Your task to perform on an android device: Open eBay Image 0: 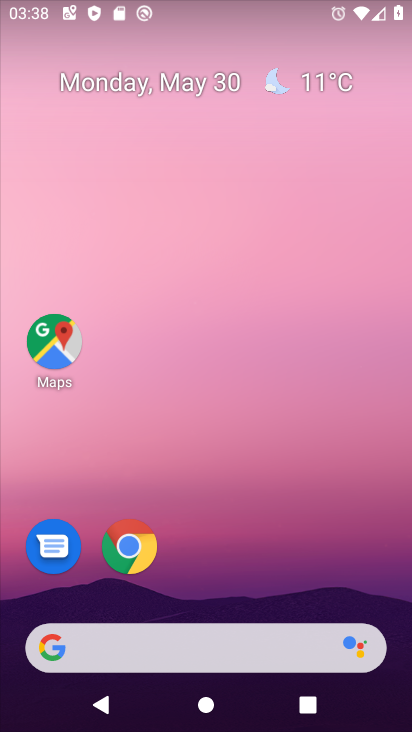
Step 0: press home button
Your task to perform on an android device: Open eBay Image 1: 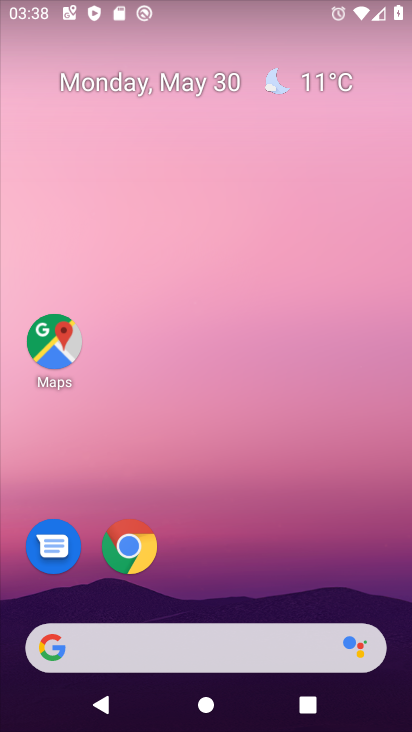
Step 1: drag from (214, 601) to (221, 90)
Your task to perform on an android device: Open eBay Image 2: 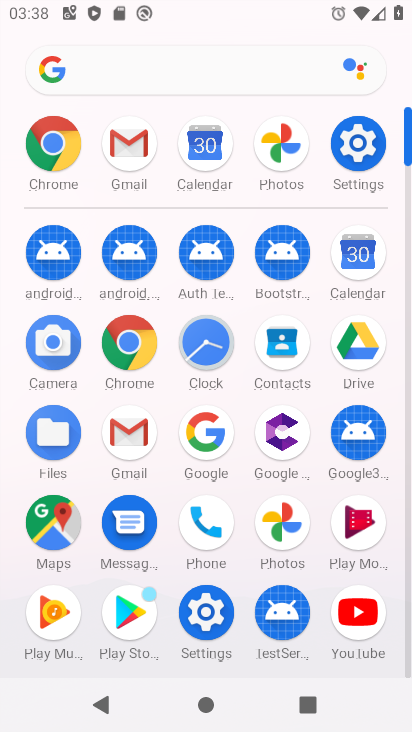
Step 2: click (47, 137)
Your task to perform on an android device: Open eBay Image 3: 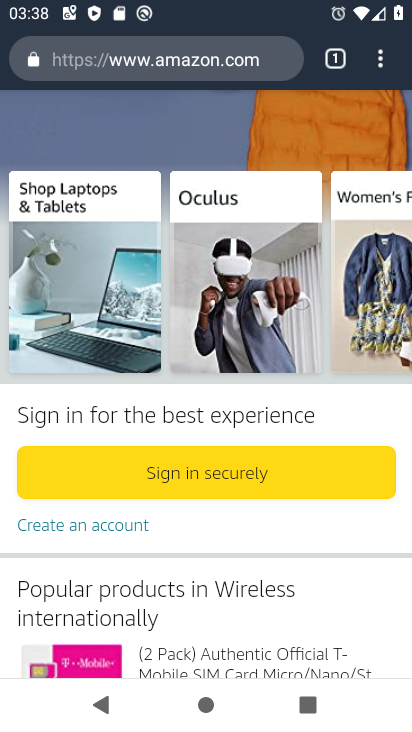
Step 3: click (337, 56)
Your task to perform on an android device: Open eBay Image 4: 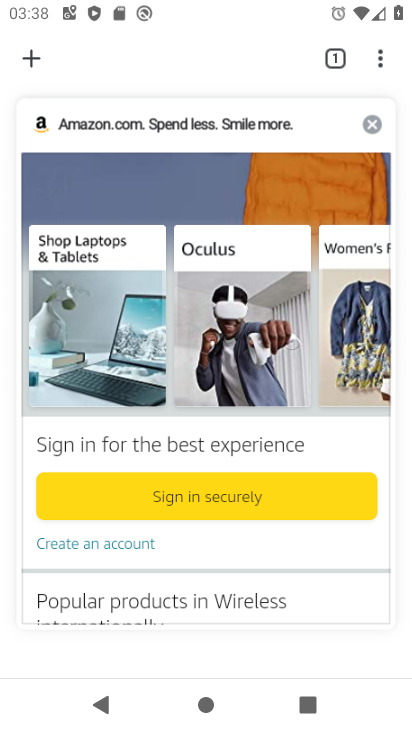
Step 4: click (36, 55)
Your task to perform on an android device: Open eBay Image 5: 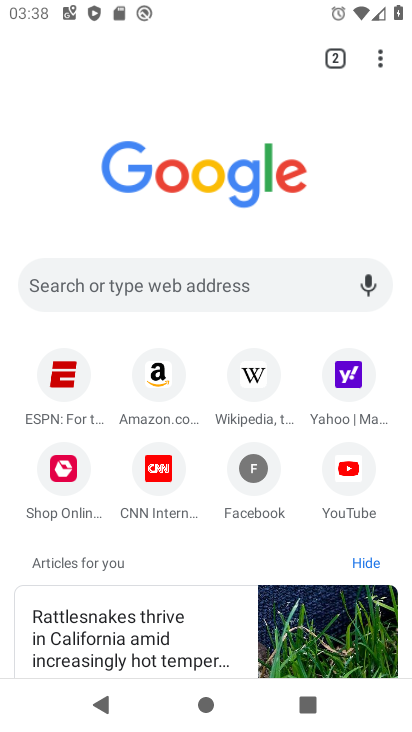
Step 5: click (131, 275)
Your task to perform on an android device: Open eBay Image 6: 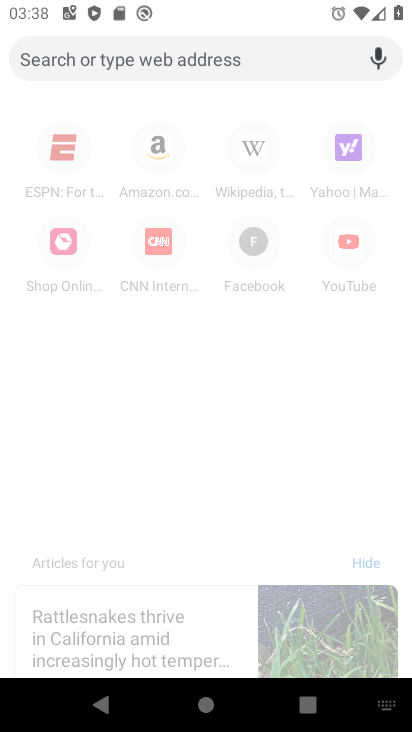
Step 6: type "ebay"
Your task to perform on an android device: Open eBay Image 7: 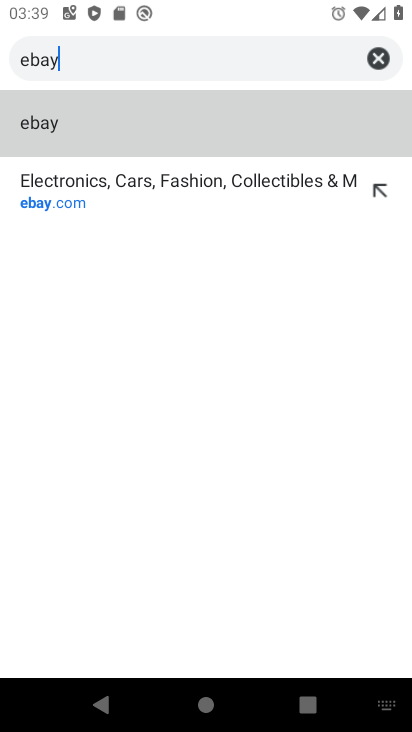
Step 7: click (94, 197)
Your task to perform on an android device: Open eBay Image 8: 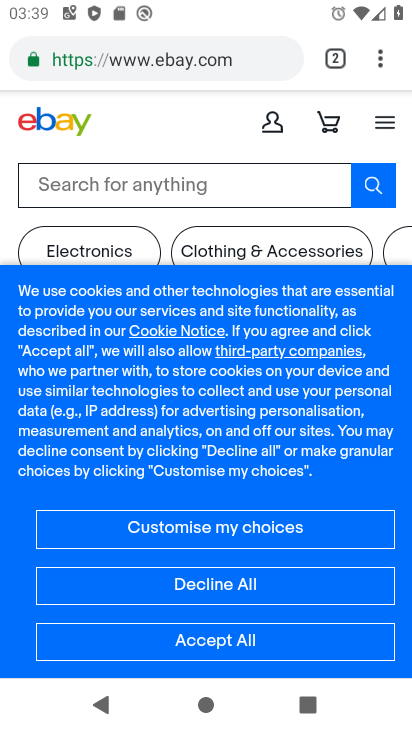
Step 8: click (234, 640)
Your task to perform on an android device: Open eBay Image 9: 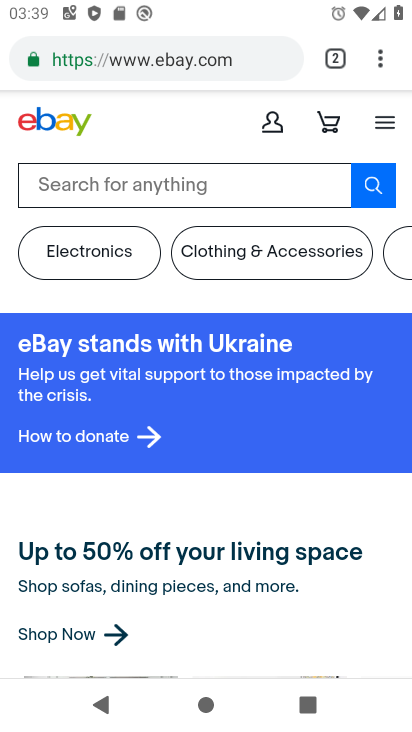
Step 9: task complete